Your task to perform on an android device: Do I have any events today? Image 0: 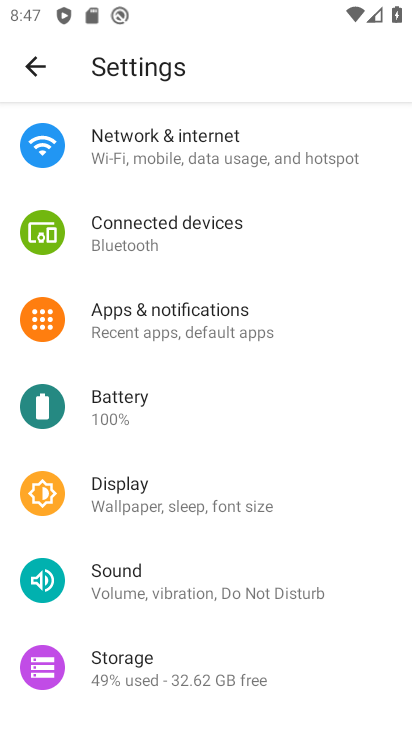
Step 0: press home button
Your task to perform on an android device: Do I have any events today? Image 1: 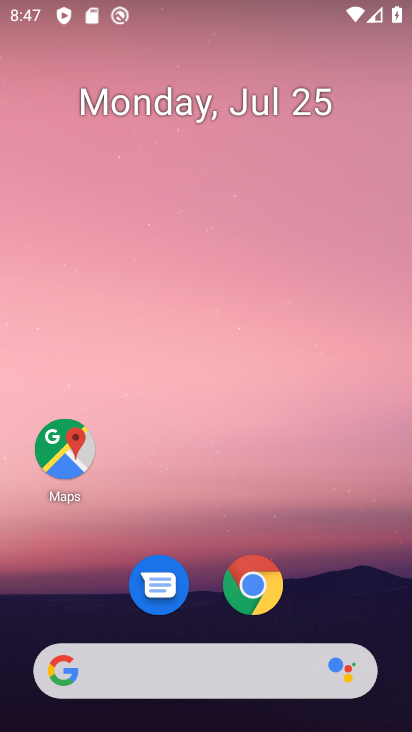
Step 1: drag from (185, 675) to (328, 120)
Your task to perform on an android device: Do I have any events today? Image 2: 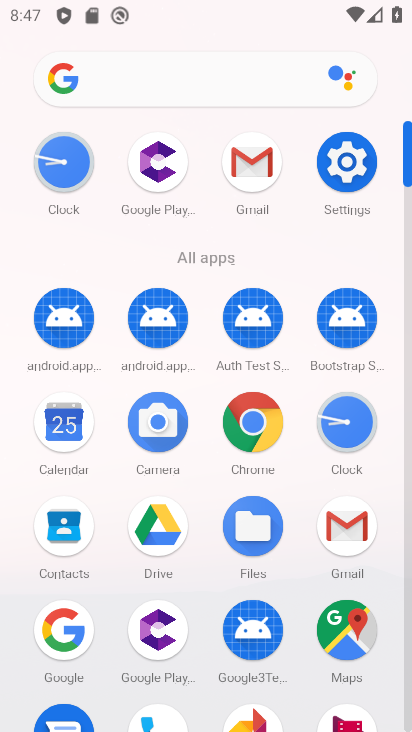
Step 2: click (63, 434)
Your task to perform on an android device: Do I have any events today? Image 3: 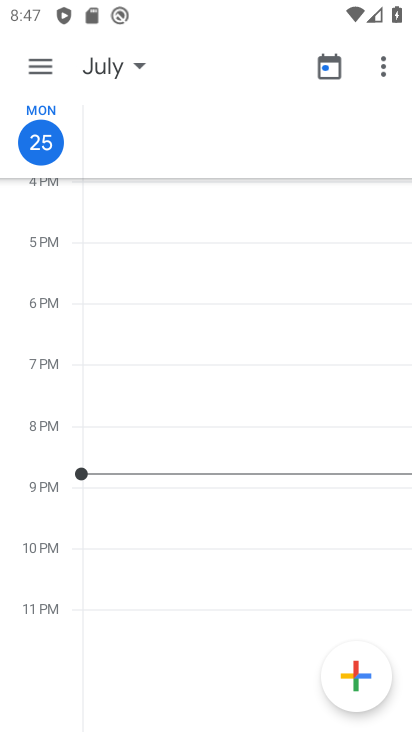
Step 3: click (116, 64)
Your task to perform on an android device: Do I have any events today? Image 4: 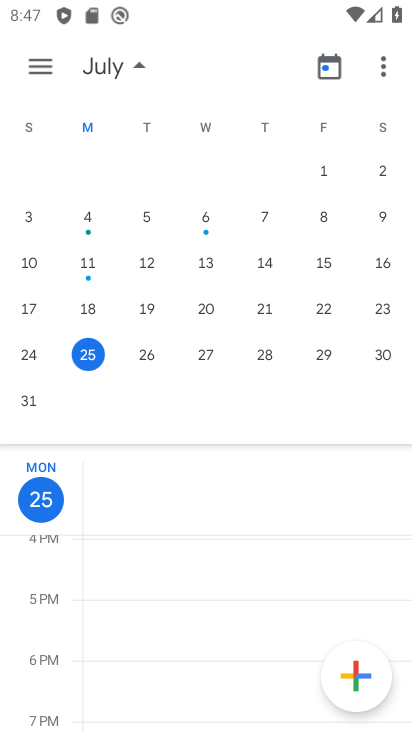
Step 4: click (97, 356)
Your task to perform on an android device: Do I have any events today? Image 5: 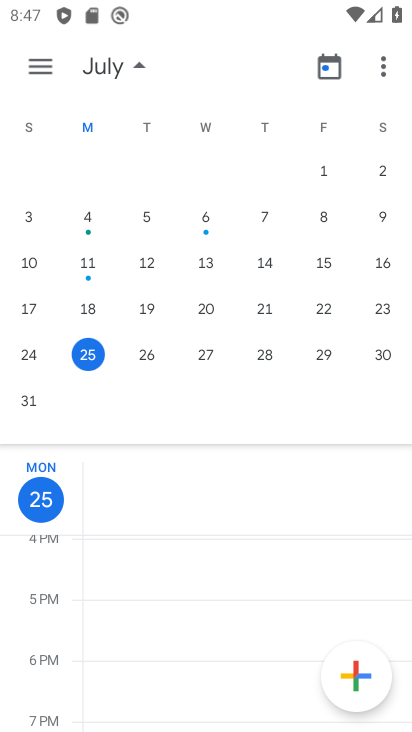
Step 5: click (89, 354)
Your task to perform on an android device: Do I have any events today? Image 6: 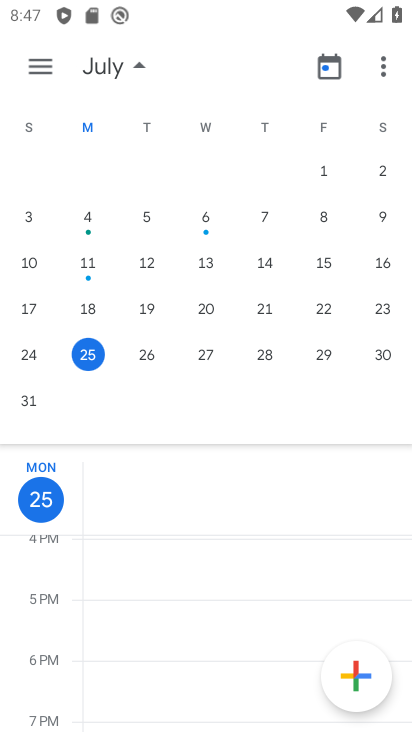
Step 6: click (45, 64)
Your task to perform on an android device: Do I have any events today? Image 7: 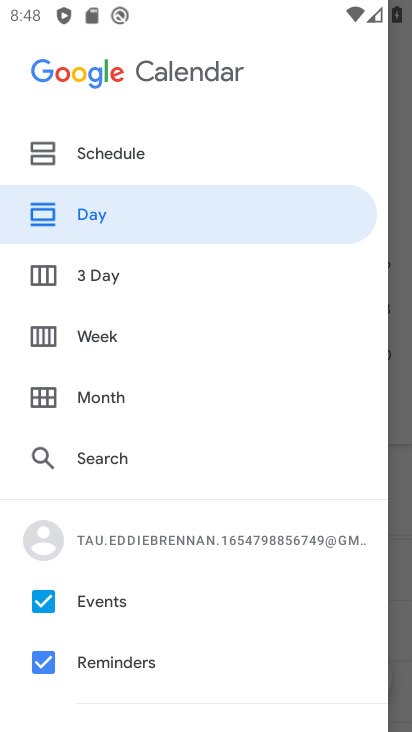
Step 7: click (120, 146)
Your task to perform on an android device: Do I have any events today? Image 8: 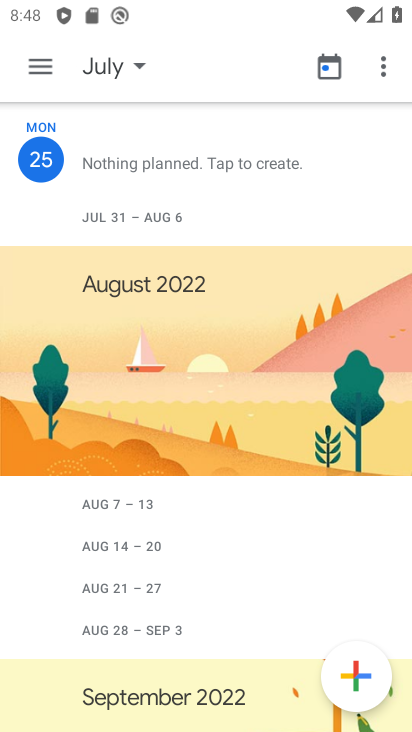
Step 8: task complete